Your task to perform on an android device: Search for sushi restaurants on Maps Image 0: 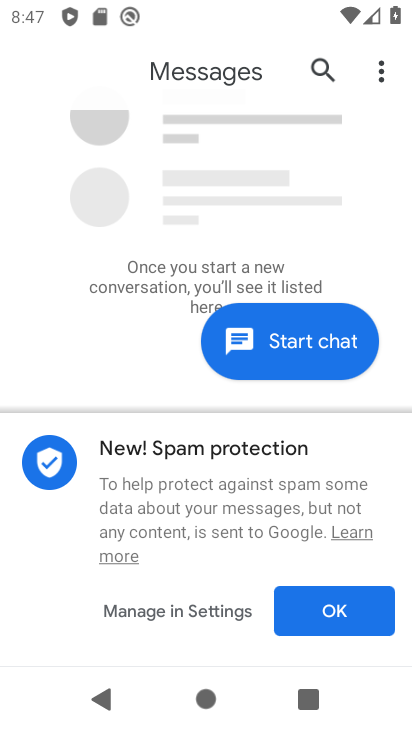
Step 0: press home button
Your task to perform on an android device: Search for sushi restaurants on Maps Image 1: 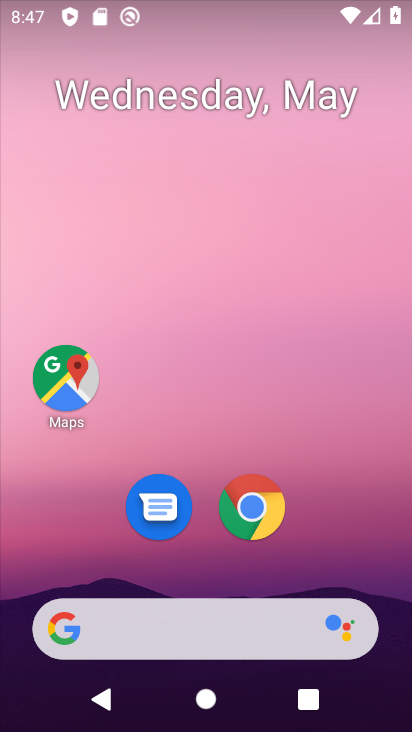
Step 1: click (50, 383)
Your task to perform on an android device: Search for sushi restaurants on Maps Image 2: 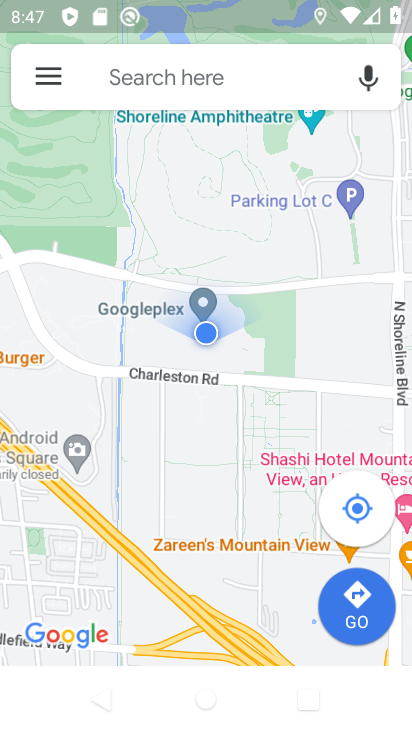
Step 2: click (193, 66)
Your task to perform on an android device: Search for sushi restaurants on Maps Image 3: 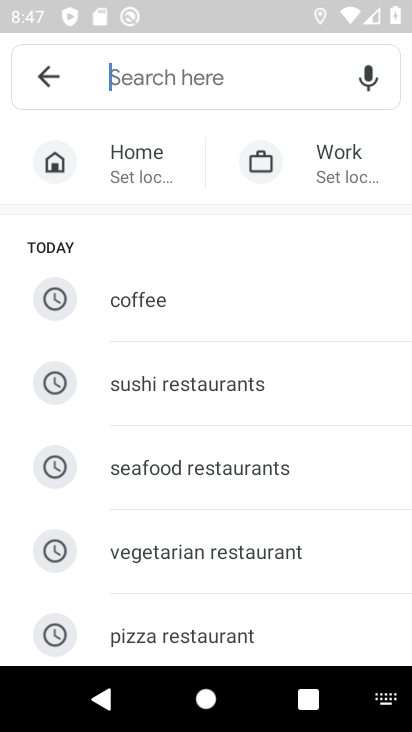
Step 3: click (300, 400)
Your task to perform on an android device: Search for sushi restaurants on Maps Image 4: 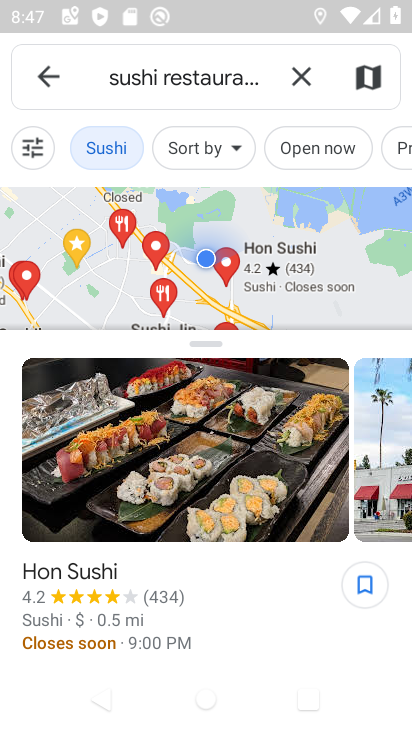
Step 4: task complete